Your task to perform on an android device: Open ESPN.com Image 0: 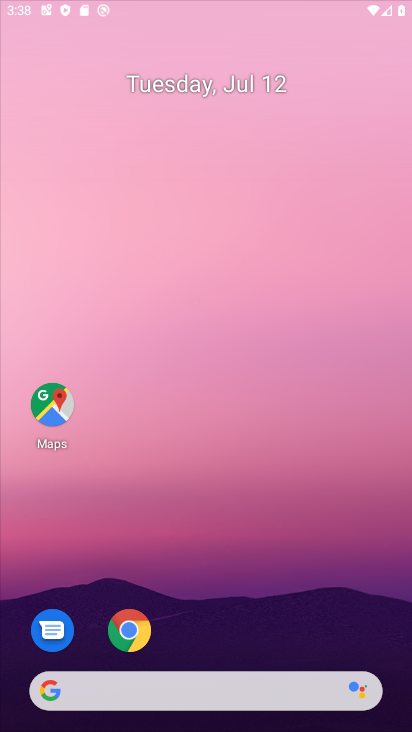
Step 0: click (177, 128)
Your task to perform on an android device: Open ESPN.com Image 1: 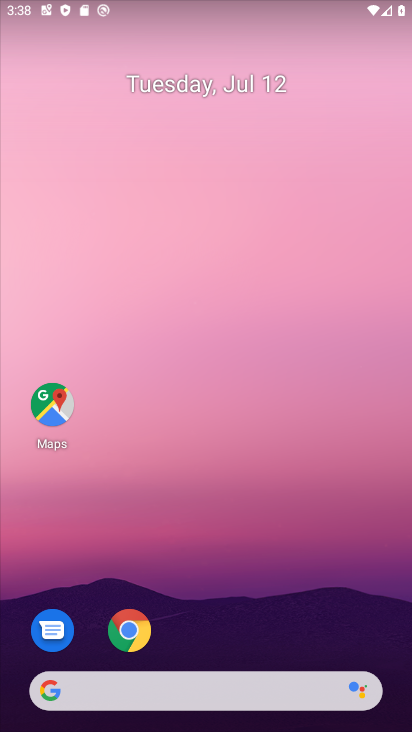
Step 1: drag from (283, 643) to (252, 172)
Your task to perform on an android device: Open ESPN.com Image 2: 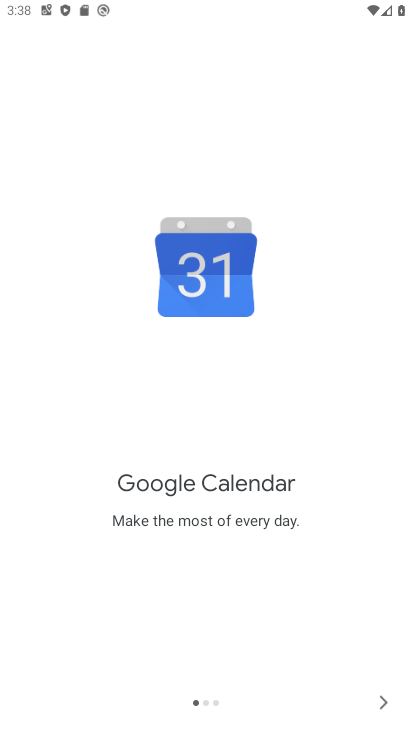
Step 2: press back button
Your task to perform on an android device: Open ESPN.com Image 3: 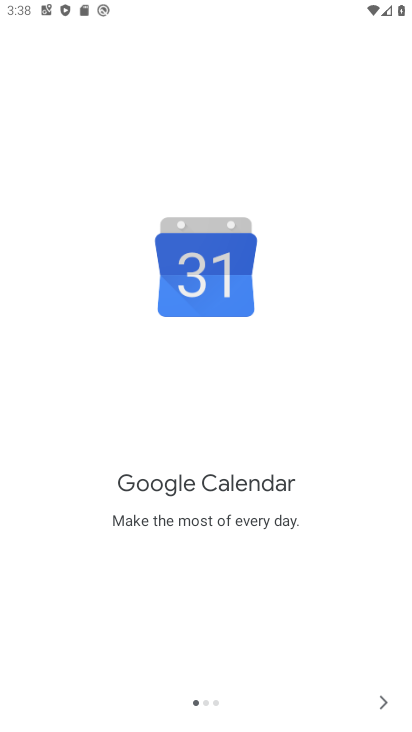
Step 3: press back button
Your task to perform on an android device: Open ESPN.com Image 4: 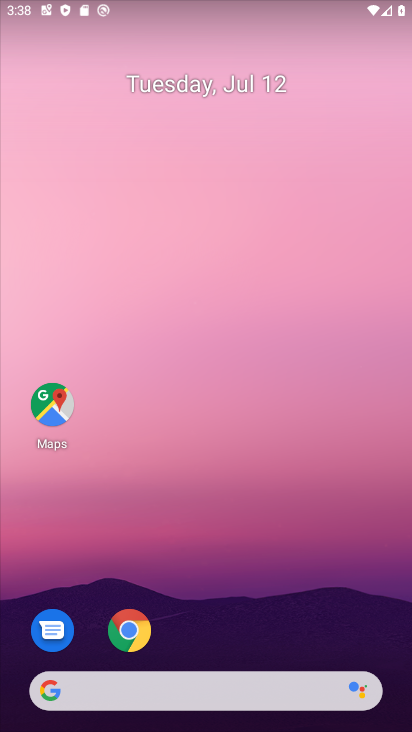
Step 4: drag from (301, 696) to (210, 21)
Your task to perform on an android device: Open ESPN.com Image 5: 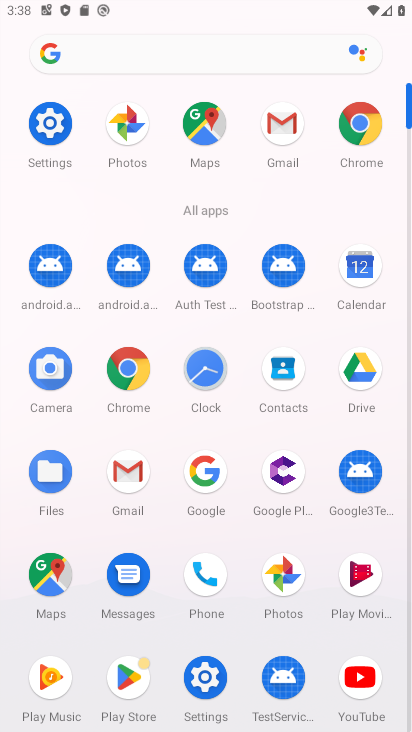
Step 5: click (351, 131)
Your task to perform on an android device: Open ESPN.com Image 6: 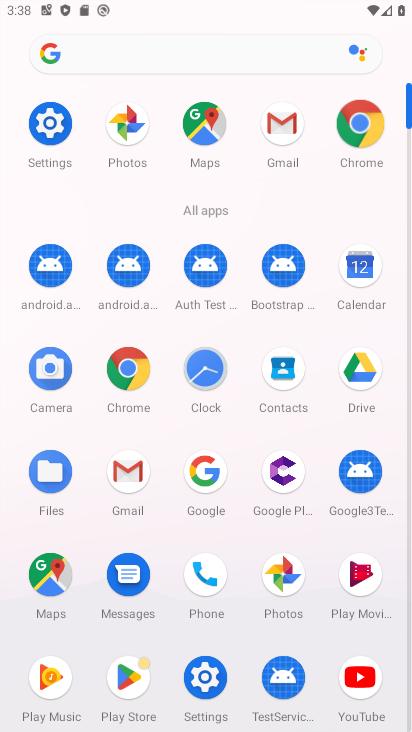
Step 6: click (358, 139)
Your task to perform on an android device: Open ESPN.com Image 7: 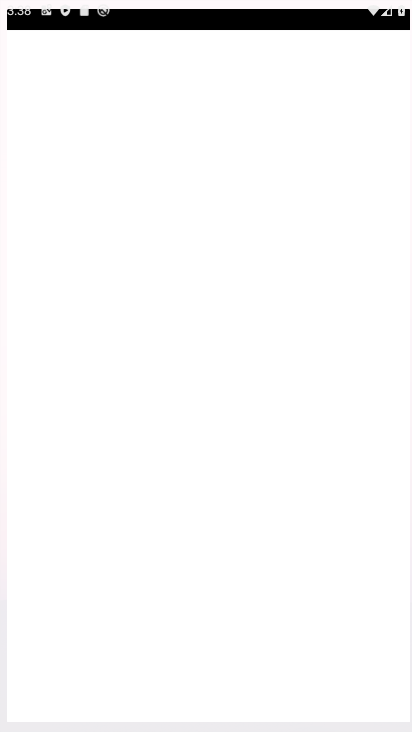
Step 7: click (359, 140)
Your task to perform on an android device: Open ESPN.com Image 8: 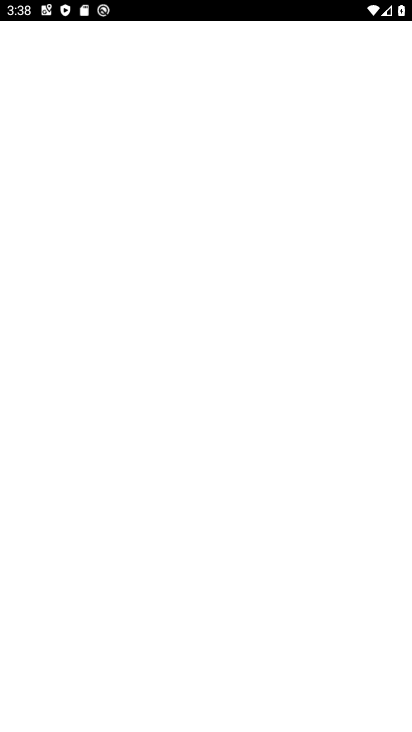
Step 8: click (360, 142)
Your task to perform on an android device: Open ESPN.com Image 9: 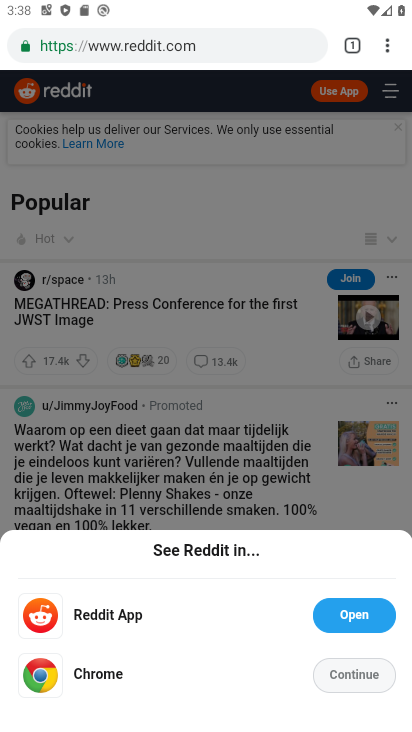
Step 9: click (63, 606)
Your task to perform on an android device: Open ESPN.com Image 10: 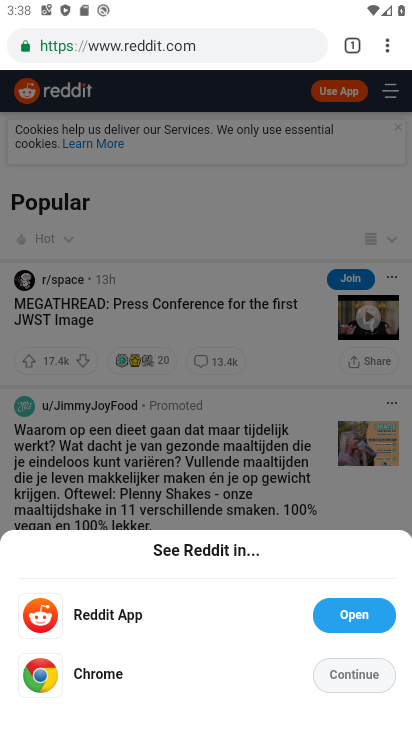
Step 10: click (97, 611)
Your task to perform on an android device: Open ESPN.com Image 11: 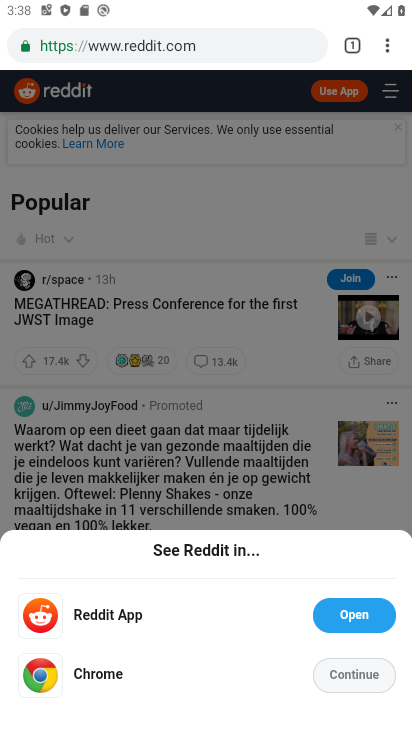
Step 11: click (103, 614)
Your task to perform on an android device: Open ESPN.com Image 12: 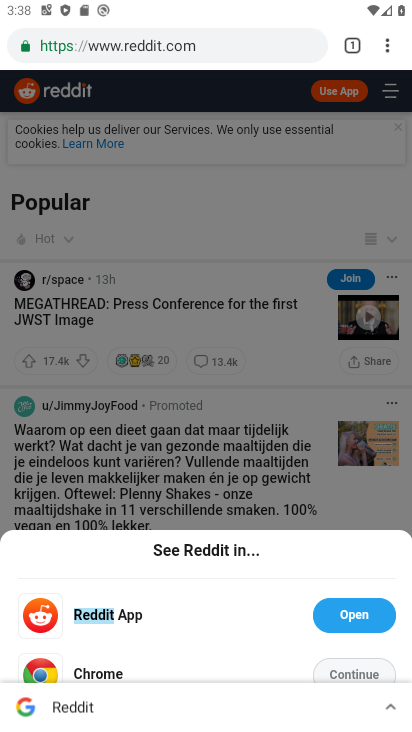
Step 12: click (103, 614)
Your task to perform on an android device: Open ESPN.com Image 13: 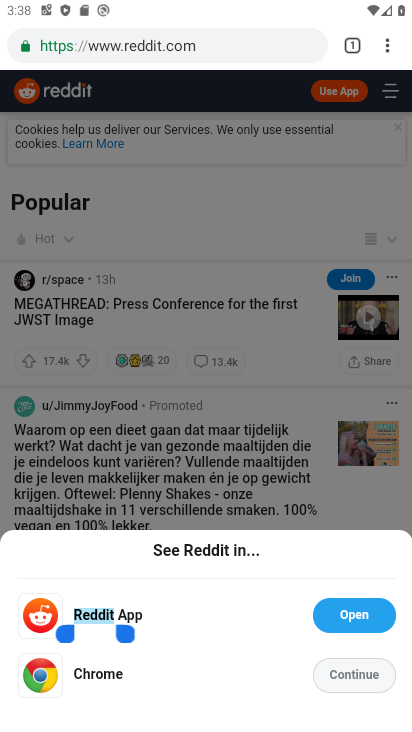
Step 13: click (120, 608)
Your task to perform on an android device: Open ESPN.com Image 14: 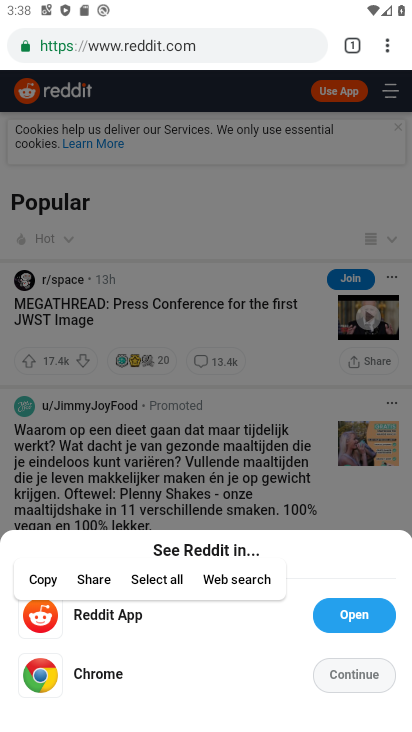
Step 14: click (253, 618)
Your task to perform on an android device: Open ESPN.com Image 15: 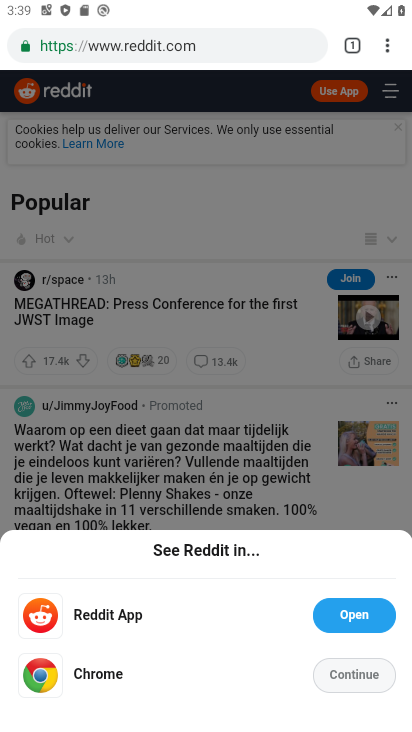
Step 15: click (251, 218)
Your task to perform on an android device: Open ESPN.com Image 16: 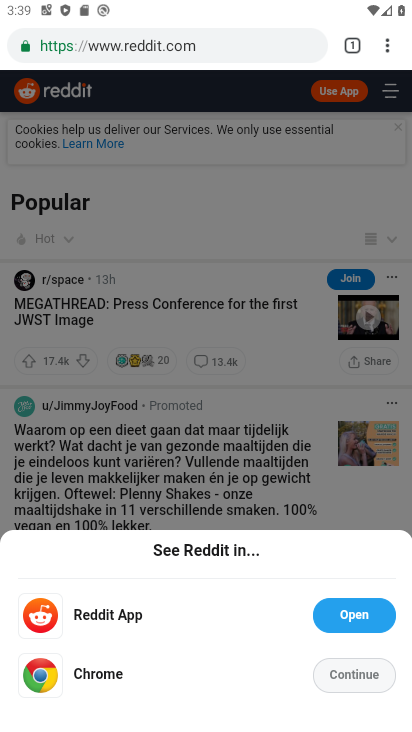
Step 16: click (251, 218)
Your task to perform on an android device: Open ESPN.com Image 17: 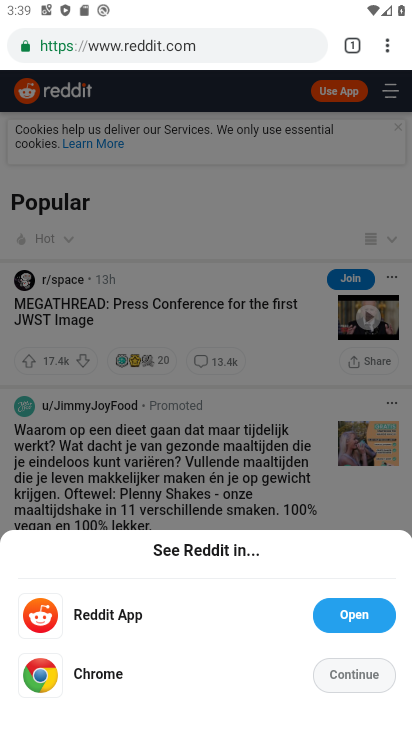
Step 17: click (251, 218)
Your task to perform on an android device: Open ESPN.com Image 18: 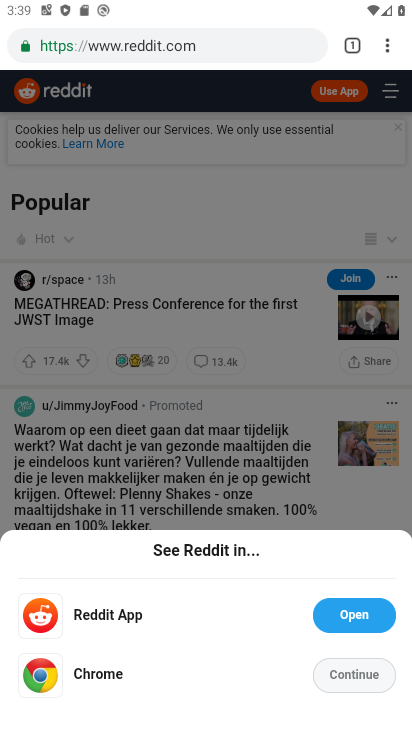
Step 18: press back button
Your task to perform on an android device: Open ESPN.com Image 19: 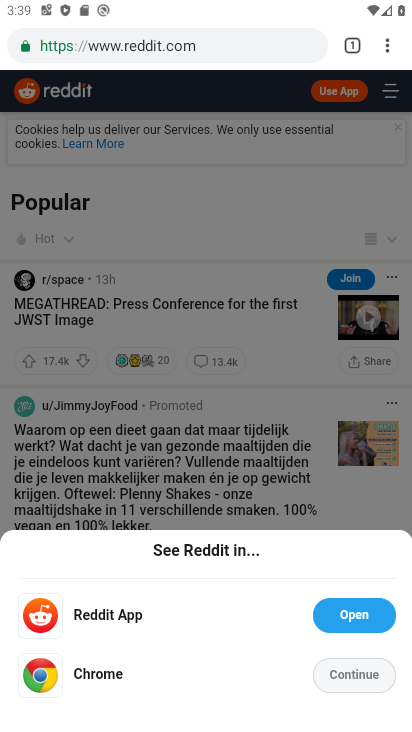
Step 19: press back button
Your task to perform on an android device: Open ESPN.com Image 20: 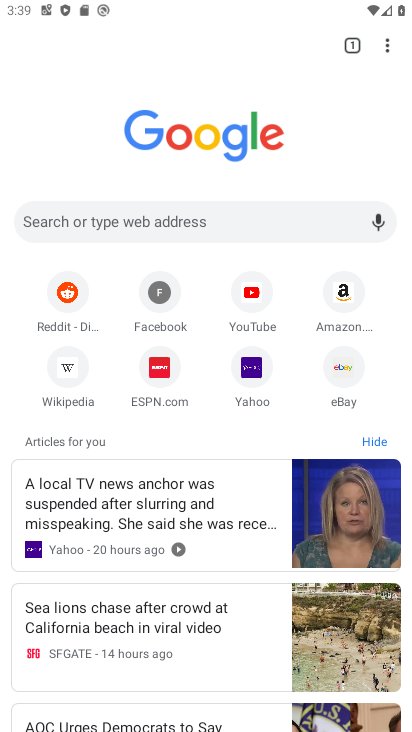
Step 20: press back button
Your task to perform on an android device: Open ESPN.com Image 21: 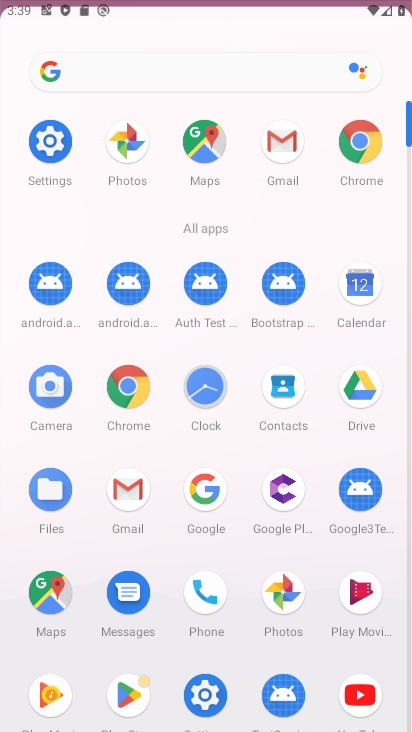
Step 21: press back button
Your task to perform on an android device: Open ESPN.com Image 22: 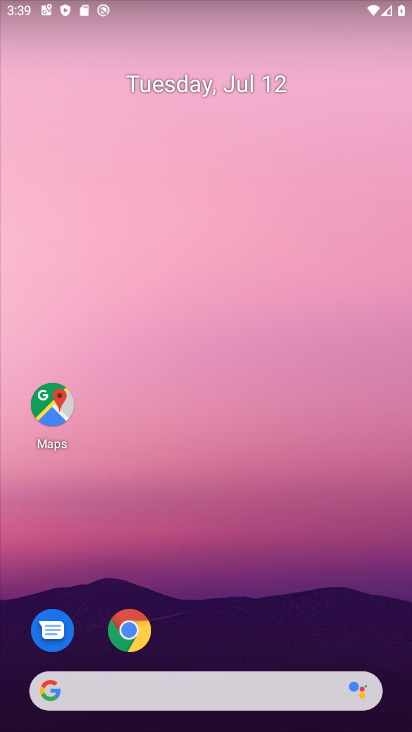
Step 22: drag from (269, 510) to (197, 16)
Your task to perform on an android device: Open ESPN.com Image 23: 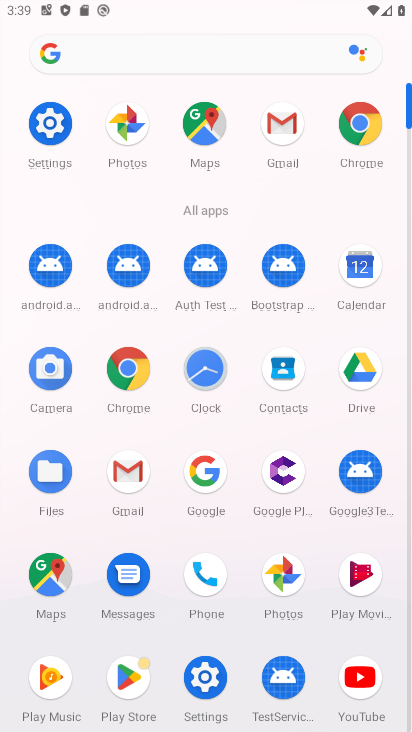
Step 23: click (364, 124)
Your task to perform on an android device: Open ESPN.com Image 24: 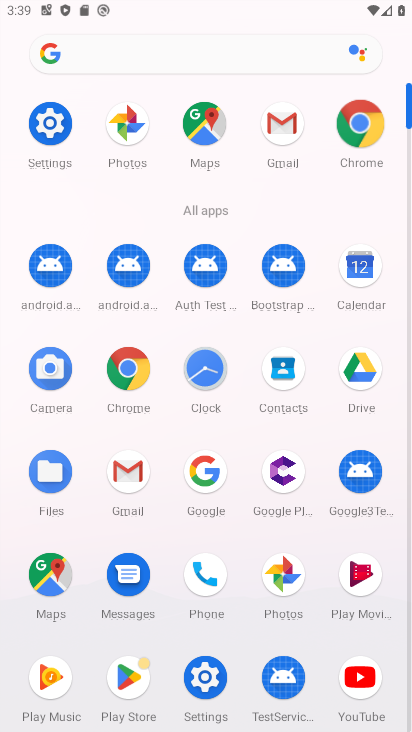
Step 24: click (364, 124)
Your task to perform on an android device: Open ESPN.com Image 25: 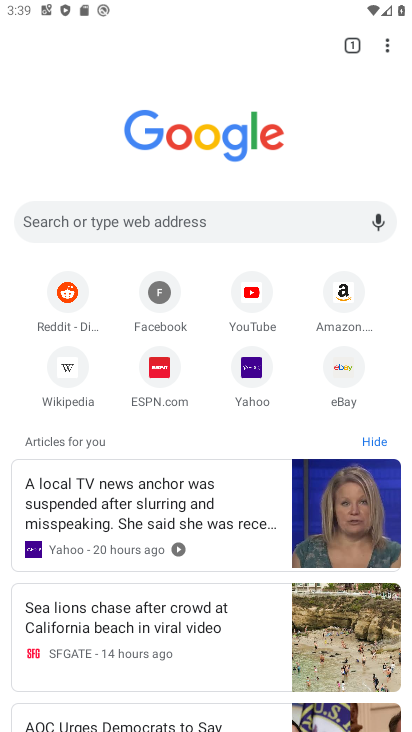
Step 25: click (152, 363)
Your task to perform on an android device: Open ESPN.com Image 26: 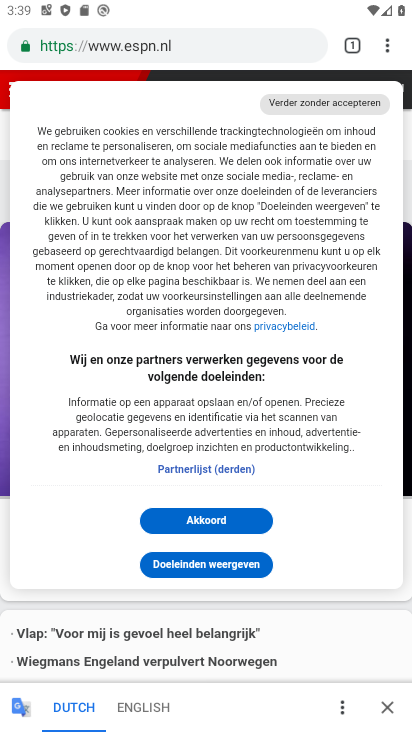
Step 26: task complete